Your task to perform on an android device: search for starred emails in the gmail app Image 0: 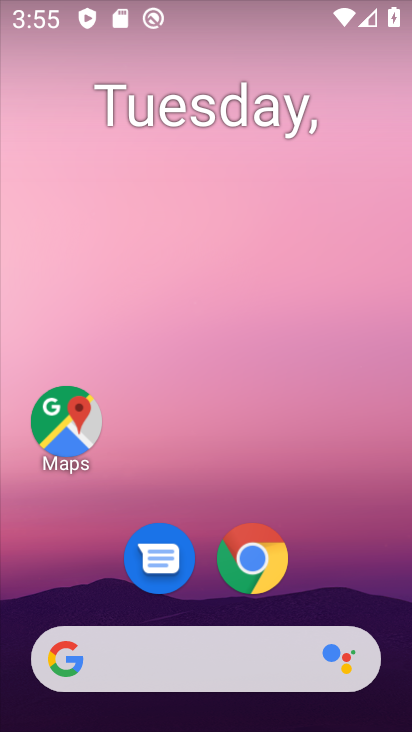
Step 0: drag from (86, 563) to (260, 11)
Your task to perform on an android device: search for starred emails in the gmail app Image 1: 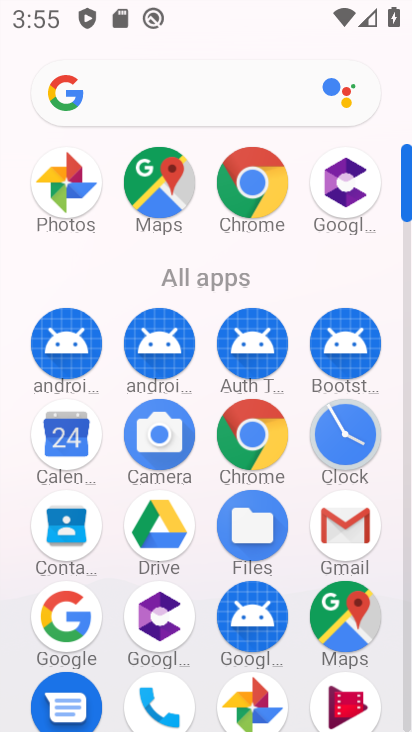
Step 1: click (347, 535)
Your task to perform on an android device: search for starred emails in the gmail app Image 2: 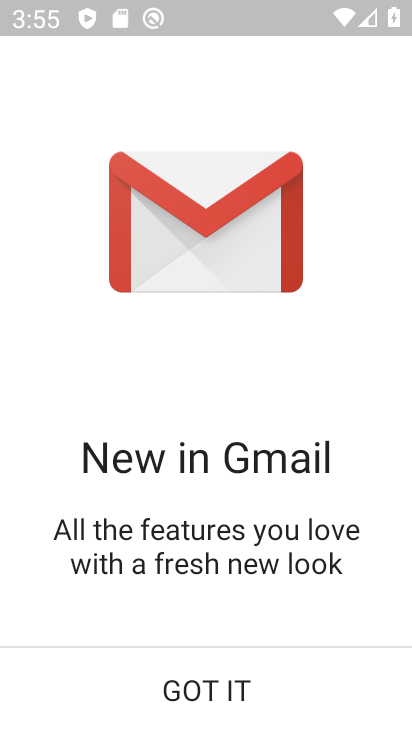
Step 2: click (243, 698)
Your task to perform on an android device: search for starred emails in the gmail app Image 3: 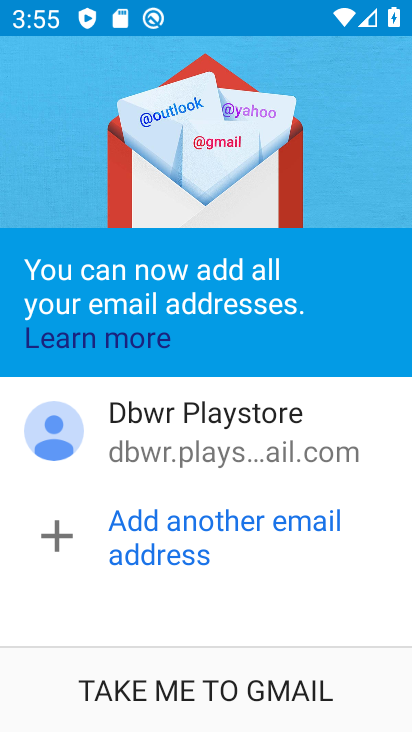
Step 3: click (243, 697)
Your task to perform on an android device: search for starred emails in the gmail app Image 4: 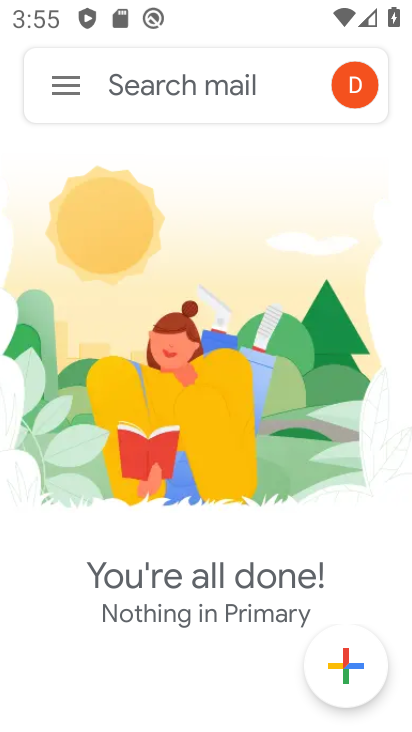
Step 4: click (71, 92)
Your task to perform on an android device: search for starred emails in the gmail app Image 5: 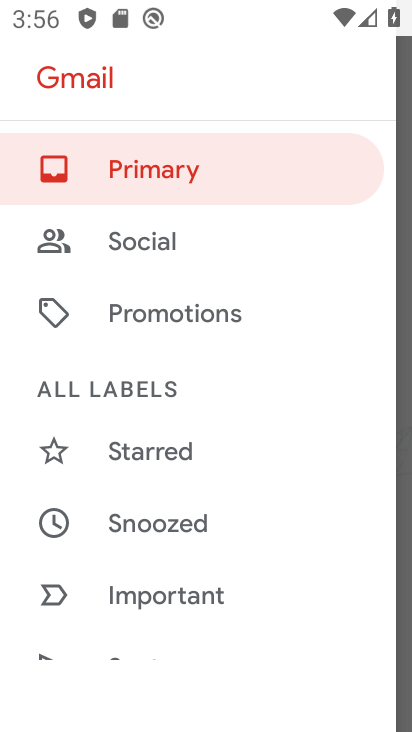
Step 5: click (219, 467)
Your task to perform on an android device: search for starred emails in the gmail app Image 6: 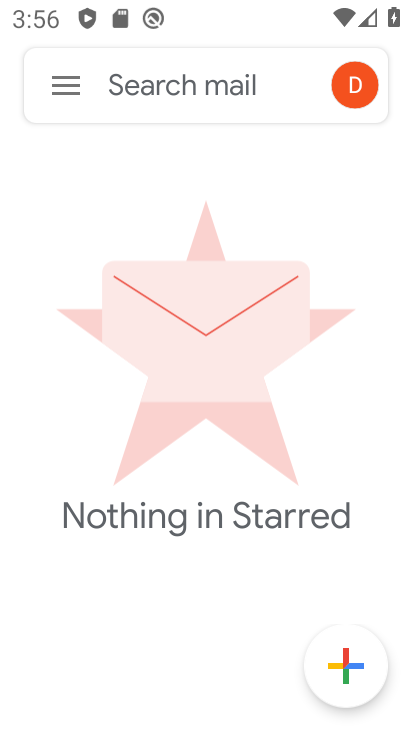
Step 6: task complete